Your task to perform on an android device: turn off picture-in-picture Image 0: 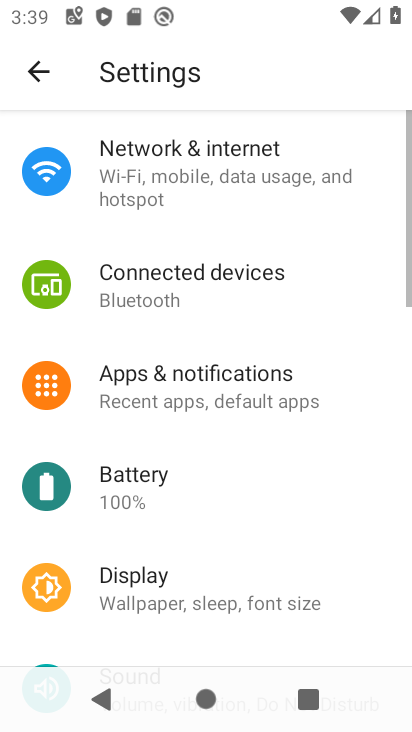
Step 0: press home button
Your task to perform on an android device: turn off picture-in-picture Image 1: 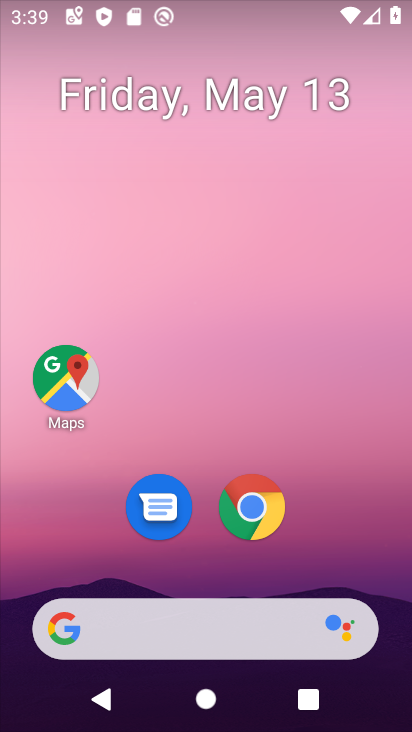
Step 1: click (266, 496)
Your task to perform on an android device: turn off picture-in-picture Image 2: 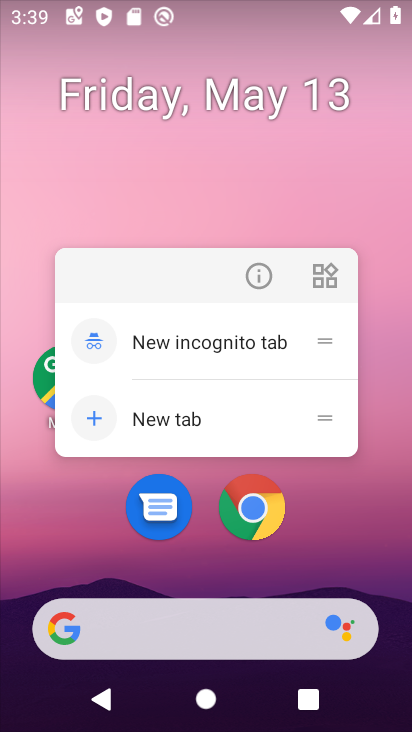
Step 2: click (244, 279)
Your task to perform on an android device: turn off picture-in-picture Image 3: 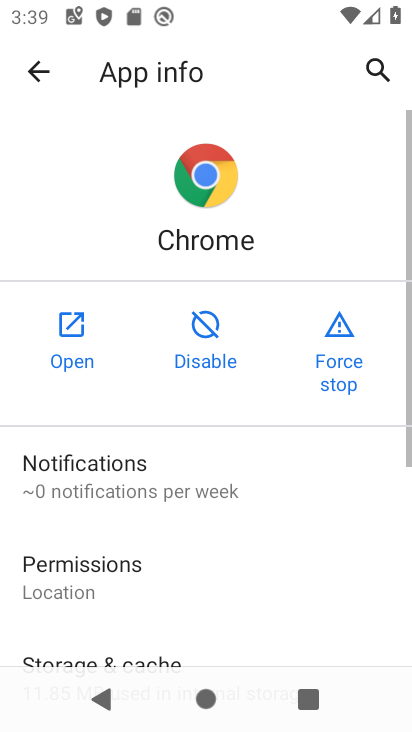
Step 3: drag from (233, 608) to (205, 196)
Your task to perform on an android device: turn off picture-in-picture Image 4: 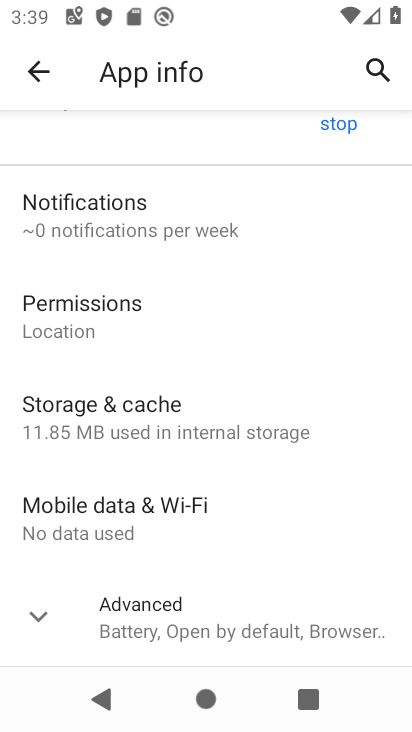
Step 4: click (186, 615)
Your task to perform on an android device: turn off picture-in-picture Image 5: 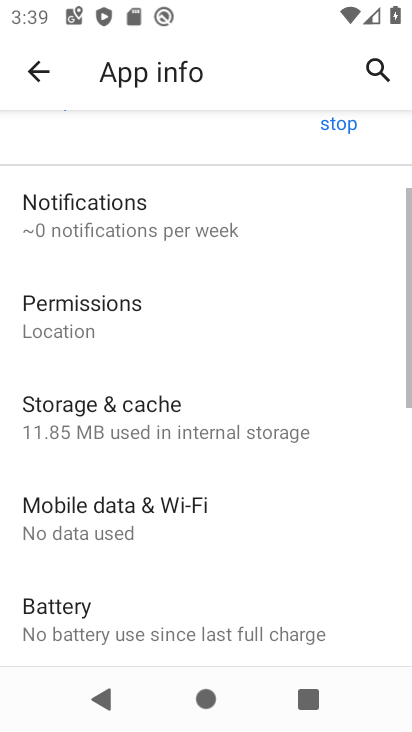
Step 5: drag from (186, 614) to (191, 227)
Your task to perform on an android device: turn off picture-in-picture Image 6: 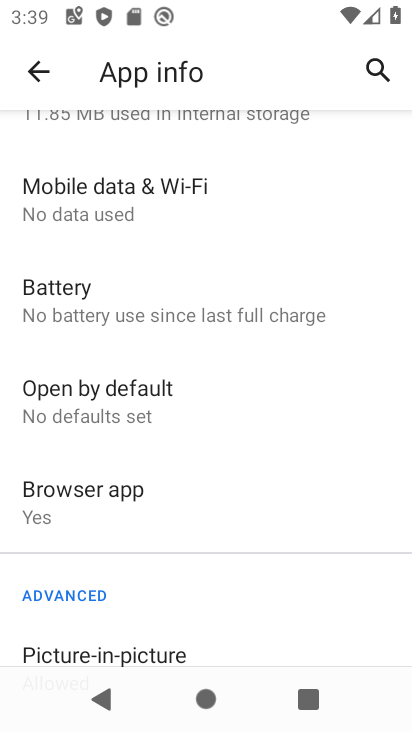
Step 6: drag from (176, 583) to (191, 300)
Your task to perform on an android device: turn off picture-in-picture Image 7: 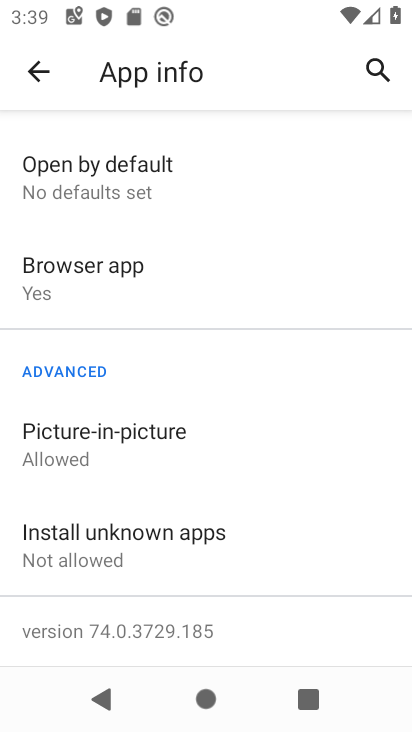
Step 7: click (178, 431)
Your task to perform on an android device: turn off picture-in-picture Image 8: 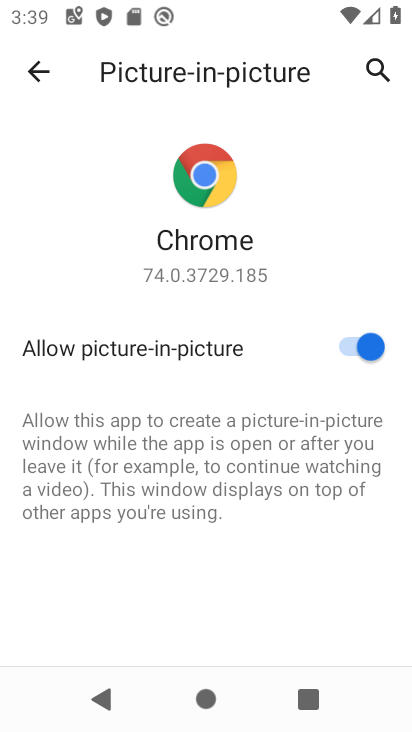
Step 8: click (364, 335)
Your task to perform on an android device: turn off picture-in-picture Image 9: 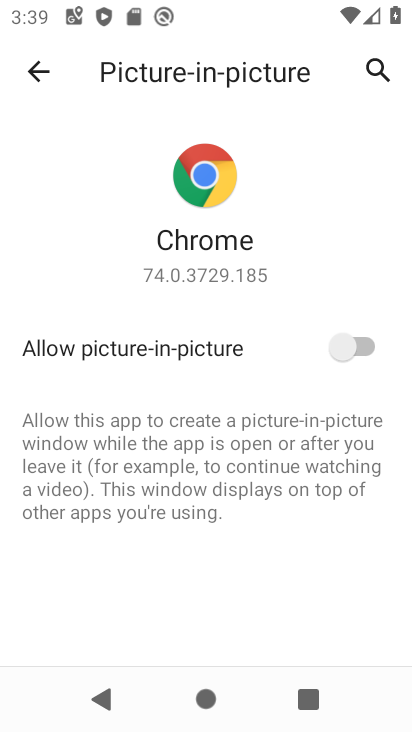
Step 9: task complete